Your task to perform on an android device: delete browsing data in the chrome app Image 0: 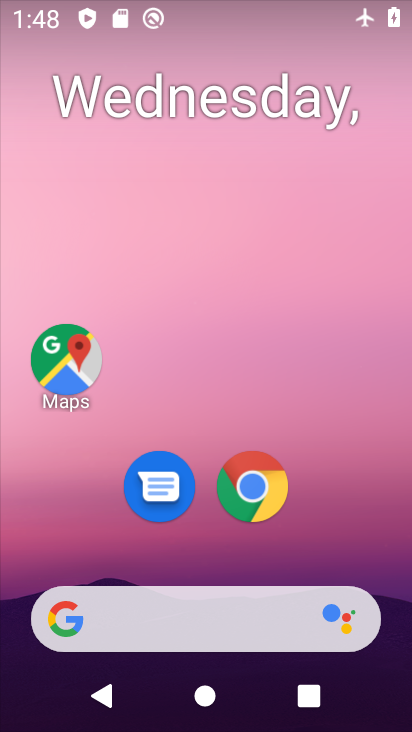
Step 0: click (309, 479)
Your task to perform on an android device: delete browsing data in the chrome app Image 1: 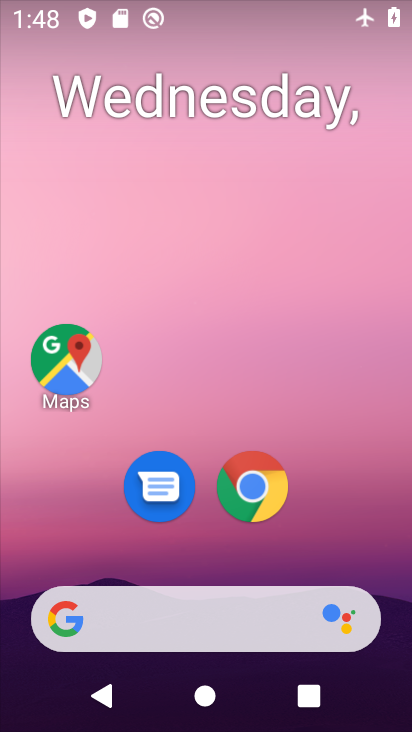
Step 1: click (299, 479)
Your task to perform on an android device: delete browsing data in the chrome app Image 2: 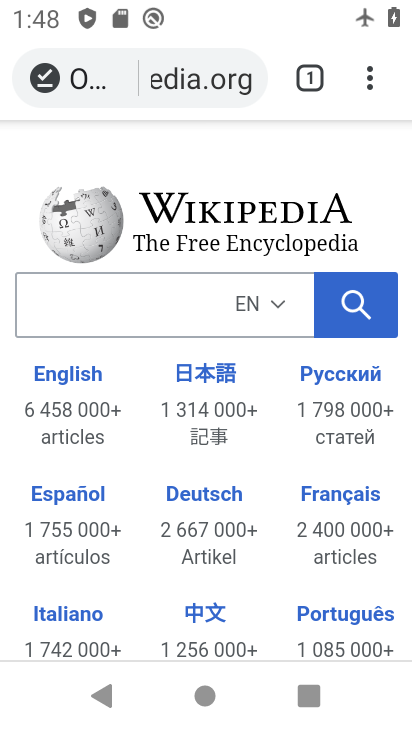
Step 2: click (375, 80)
Your task to perform on an android device: delete browsing data in the chrome app Image 3: 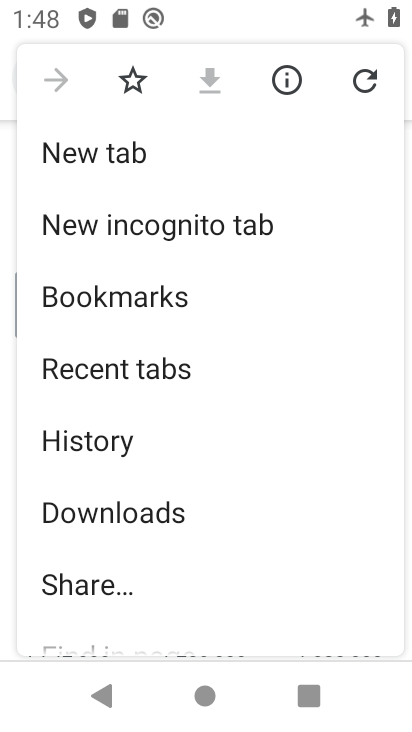
Step 3: click (126, 447)
Your task to perform on an android device: delete browsing data in the chrome app Image 4: 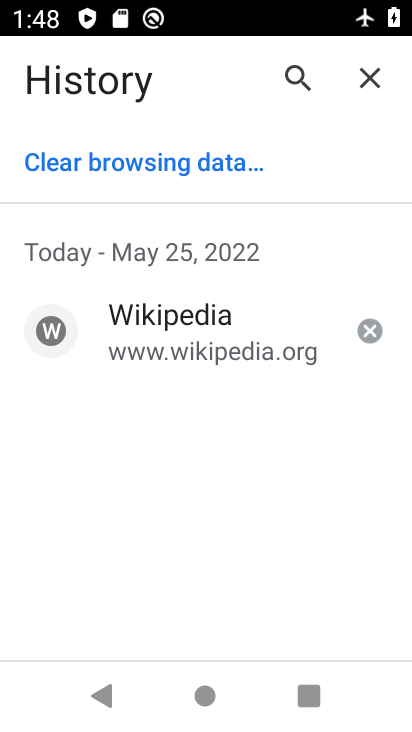
Step 4: click (95, 153)
Your task to perform on an android device: delete browsing data in the chrome app Image 5: 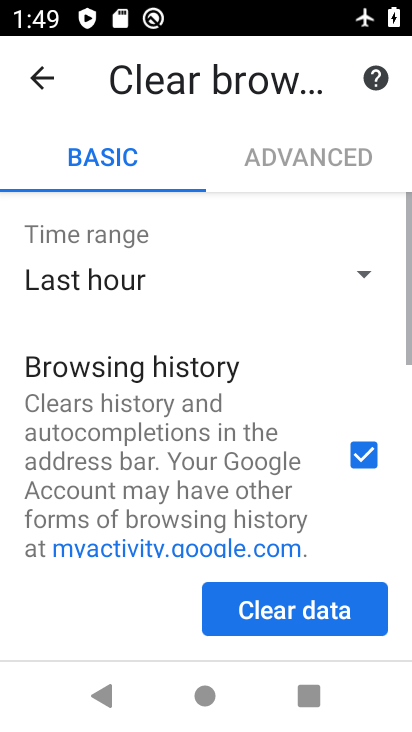
Step 5: click (287, 607)
Your task to perform on an android device: delete browsing data in the chrome app Image 6: 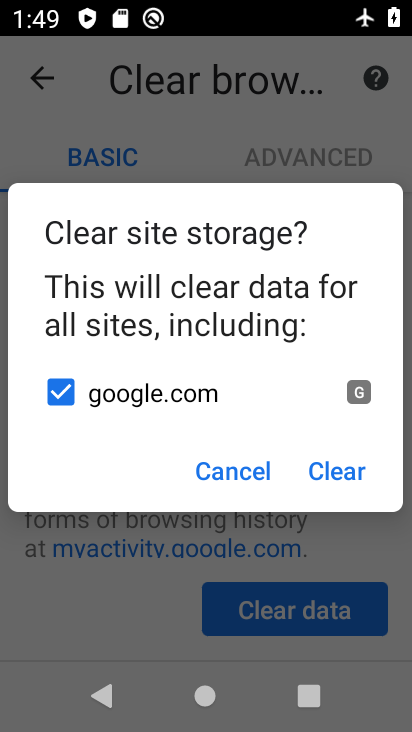
Step 6: click (343, 467)
Your task to perform on an android device: delete browsing data in the chrome app Image 7: 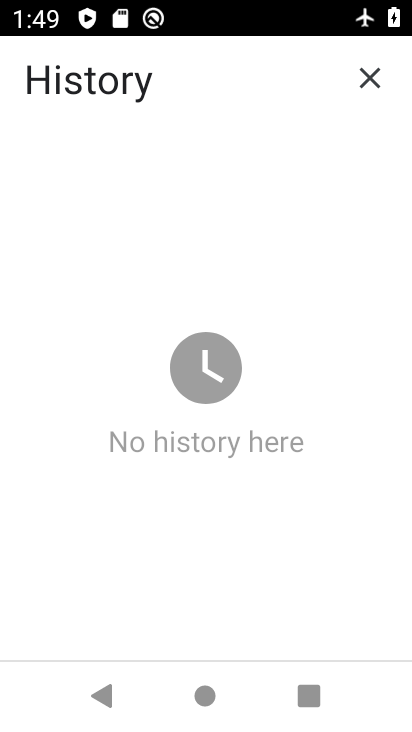
Step 7: task complete